Your task to perform on an android device: Search for pizza restaurants on Maps Image 0: 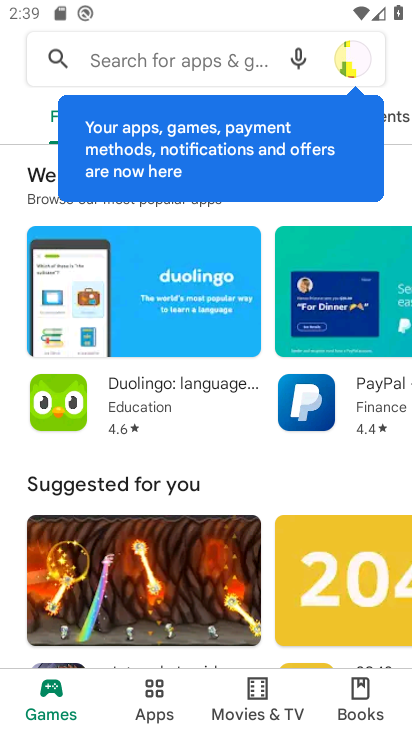
Step 0: press home button
Your task to perform on an android device: Search for pizza restaurants on Maps Image 1: 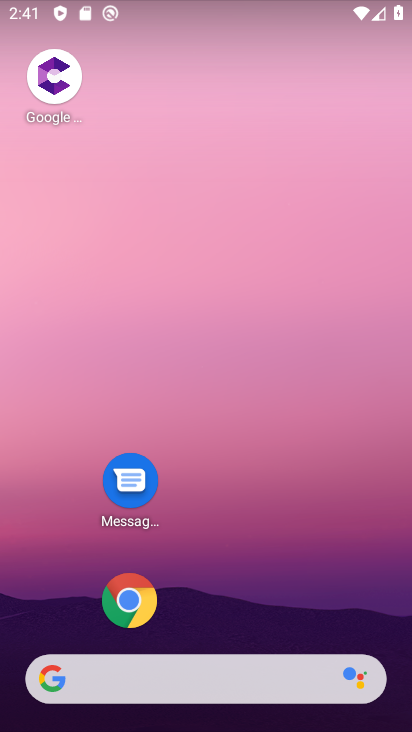
Step 1: drag from (58, 485) to (214, 140)
Your task to perform on an android device: Search for pizza restaurants on Maps Image 2: 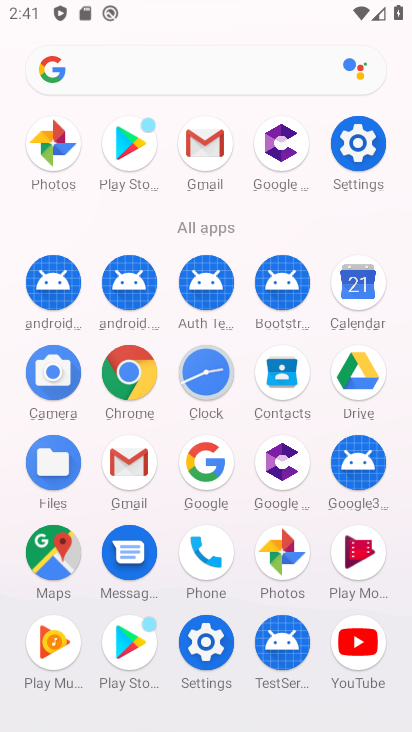
Step 2: click (53, 551)
Your task to perform on an android device: Search for pizza restaurants on Maps Image 3: 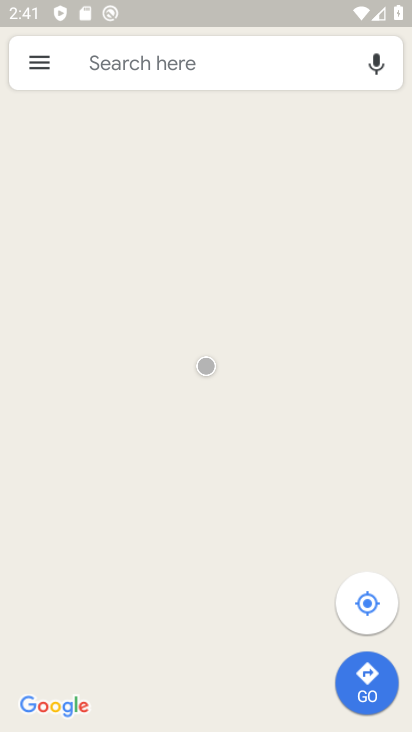
Step 3: click (149, 56)
Your task to perform on an android device: Search for pizza restaurants on Maps Image 4: 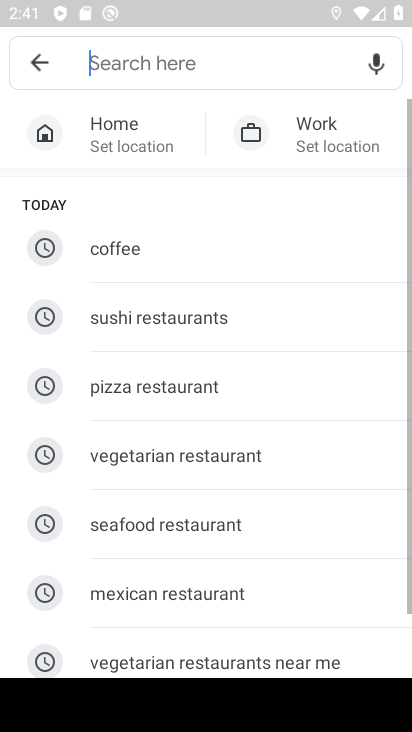
Step 4: click (166, 386)
Your task to perform on an android device: Search for pizza restaurants on Maps Image 5: 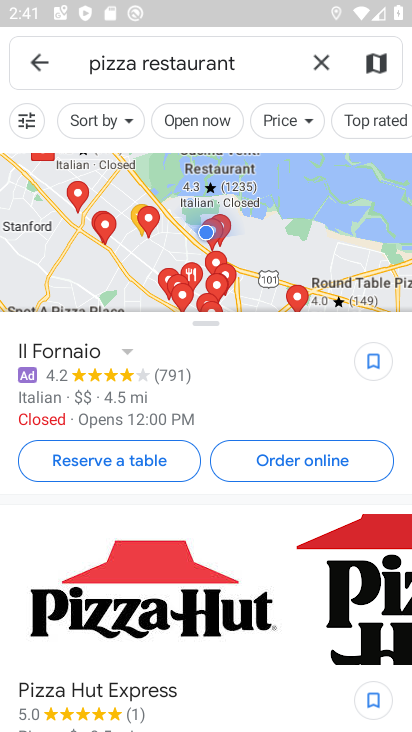
Step 5: task complete